Your task to perform on an android device: Go to internet settings Image 0: 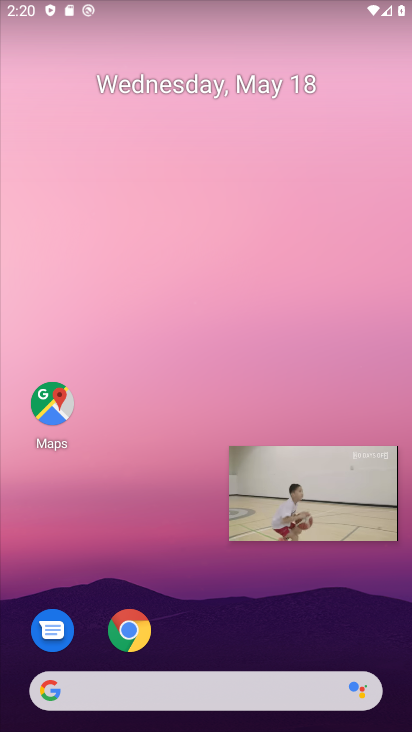
Step 0: drag from (193, 645) to (175, 118)
Your task to perform on an android device: Go to internet settings Image 1: 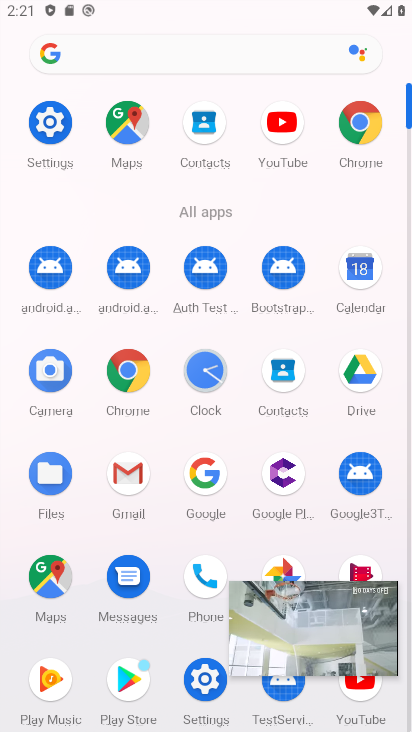
Step 1: click (50, 132)
Your task to perform on an android device: Go to internet settings Image 2: 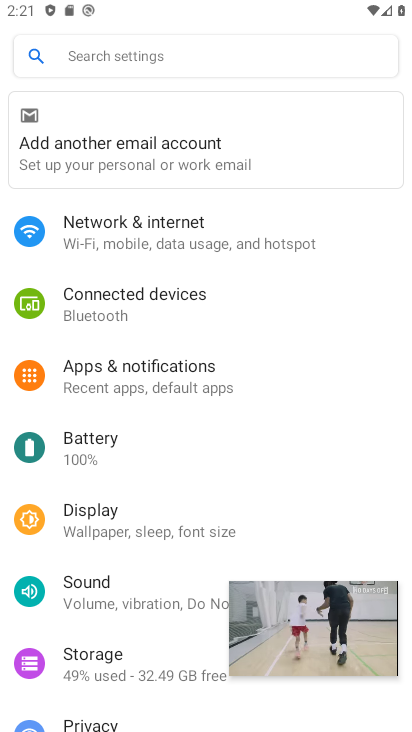
Step 2: click (149, 233)
Your task to perform on an android device: Go to internet settings Image 3: 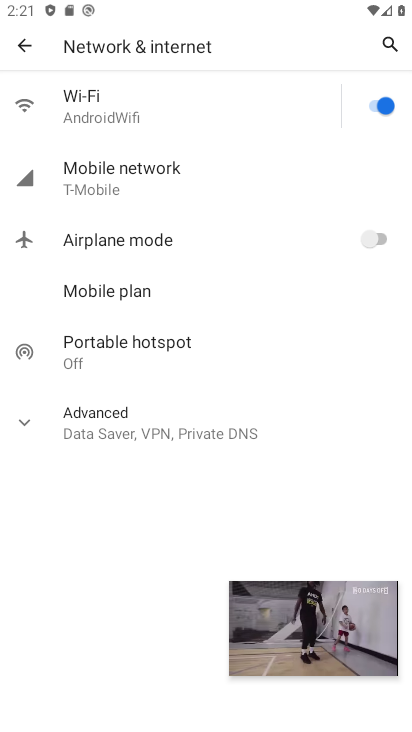
Step 3: click (28, 415)
Your task to perform on an android device: Go to internet settings Image 4: 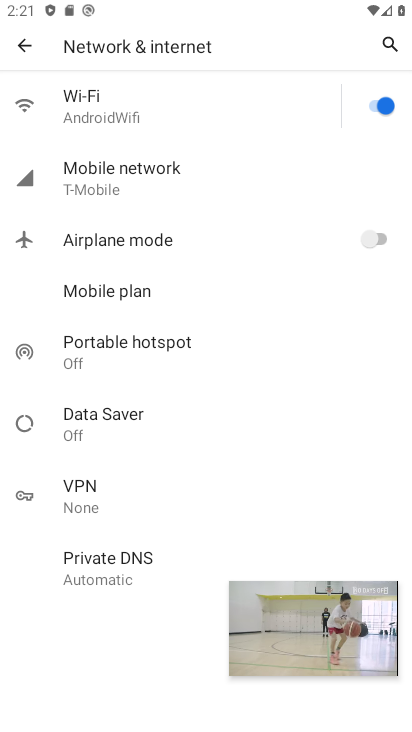
Step 4: task complete